Your task to perform on an android device: open app "Etsy: Buy & Sell Unique Items" (install if not already installed) Image 0: 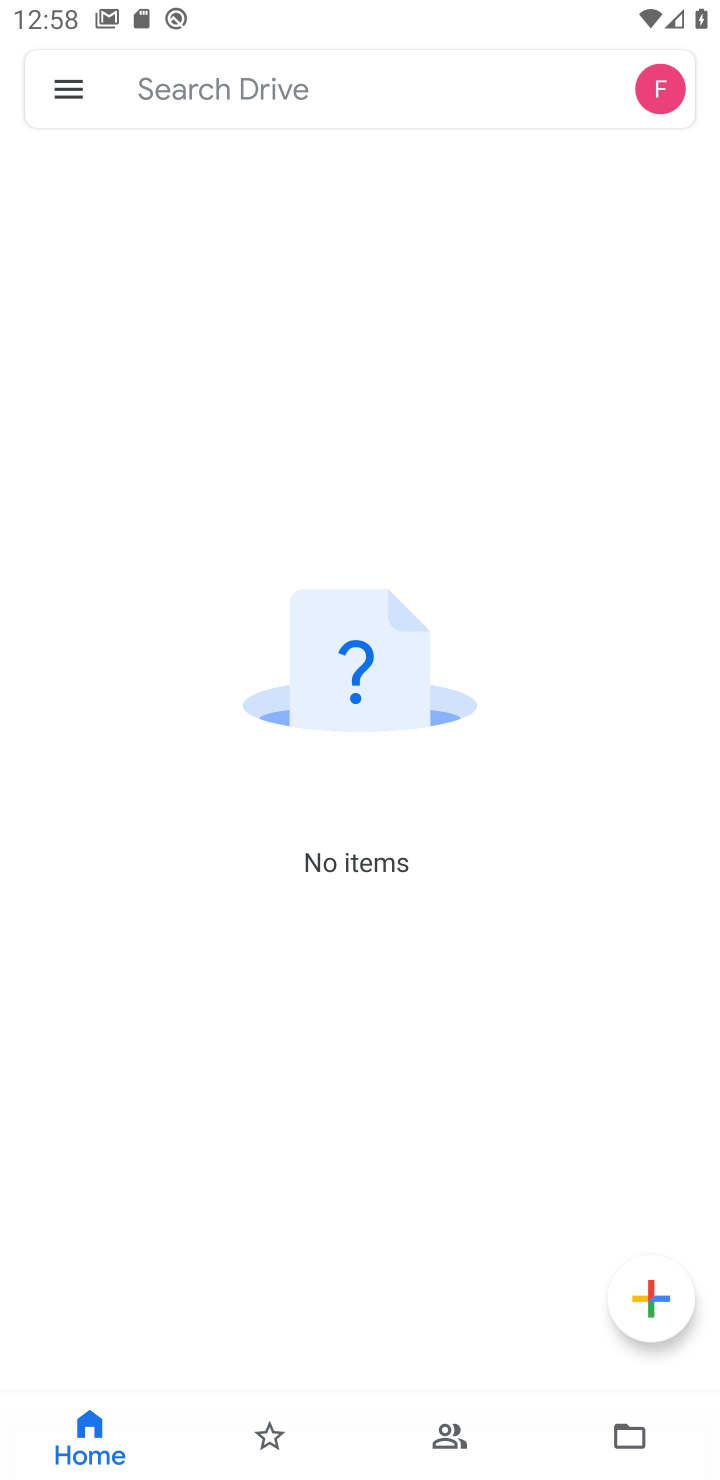
Step 0: press home button
Your task to perform on an android device: open app "Etsy: Buy & Sell Unique Items" (install if not already installed) Image 1: 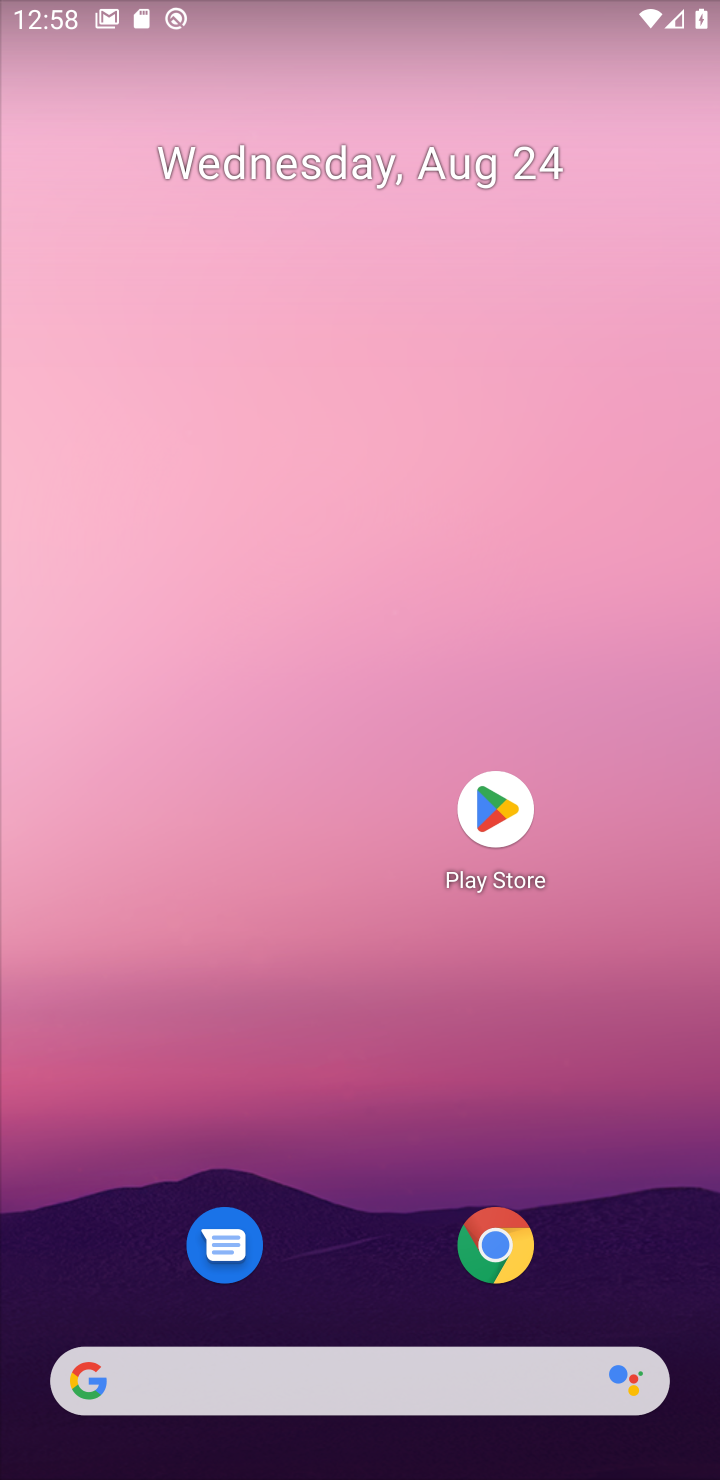
Step 1: click (498, 805)
Your task to perform on an android device: open app "Etsy: Buy & Sell Unique Items" (install if not already installed) Image 2: 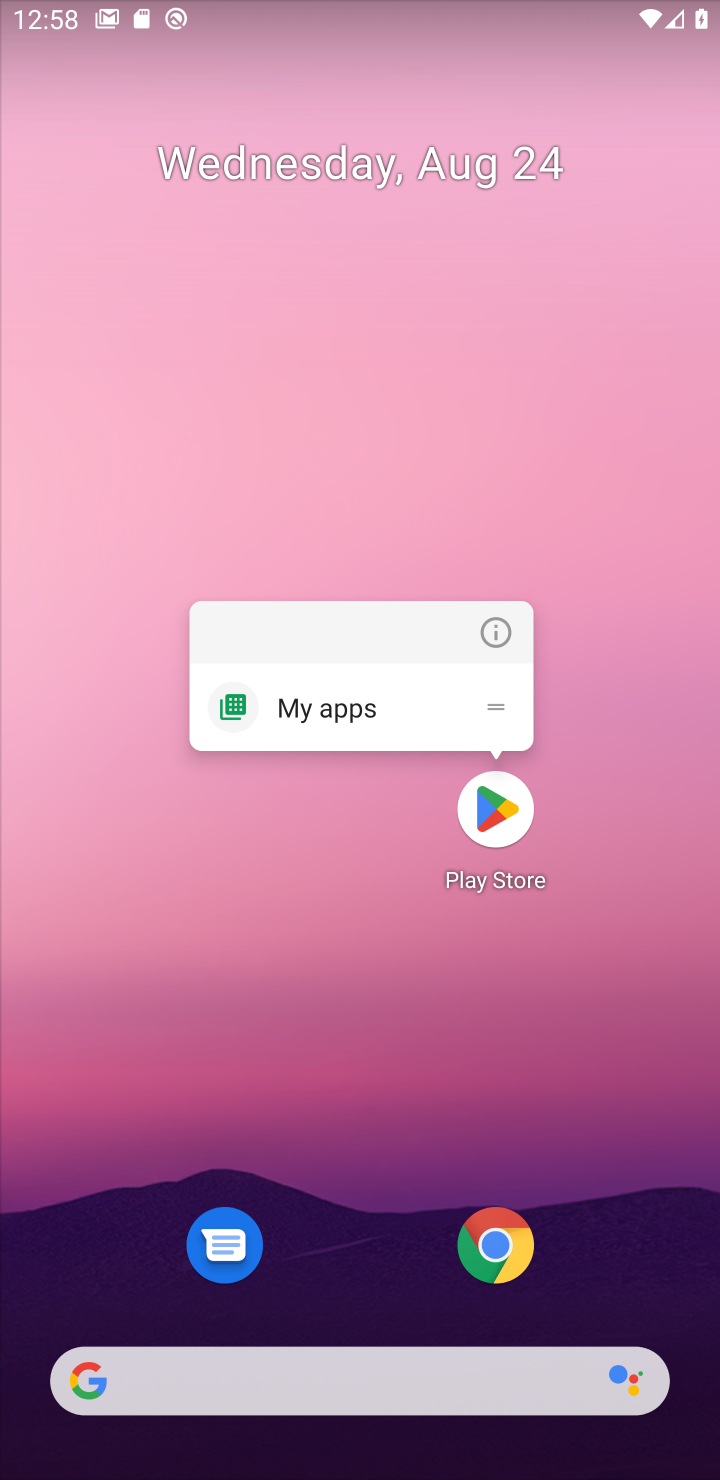
Step 2: click (498, 803)
Your task to perform on an android device: open app "Etsy: Buy & Sell Unique Items" (install if not already installed) Image 3: 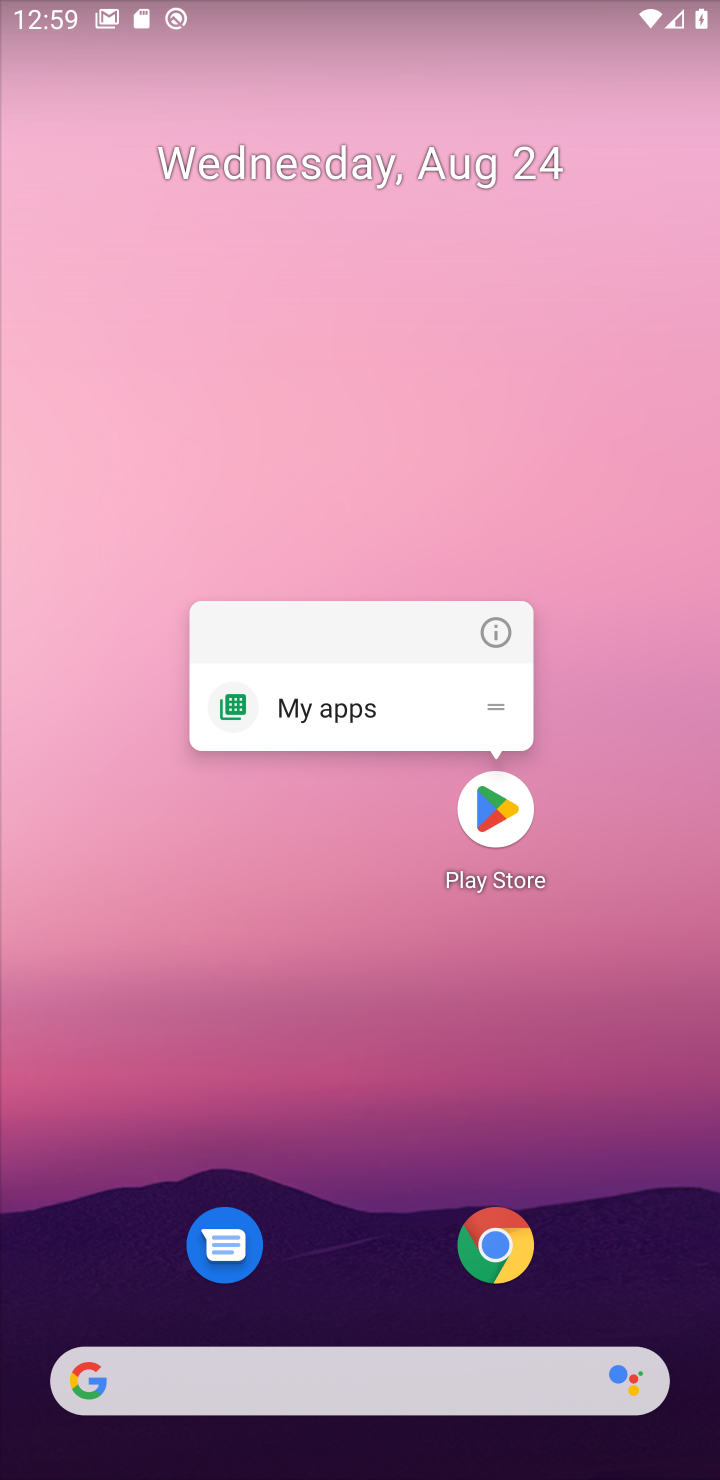
Step 3: click (498, 800)
Your task to perform on an android device: open app "Etsy: Buy & Sell Unique Items" (install if not already installed) Image 4: 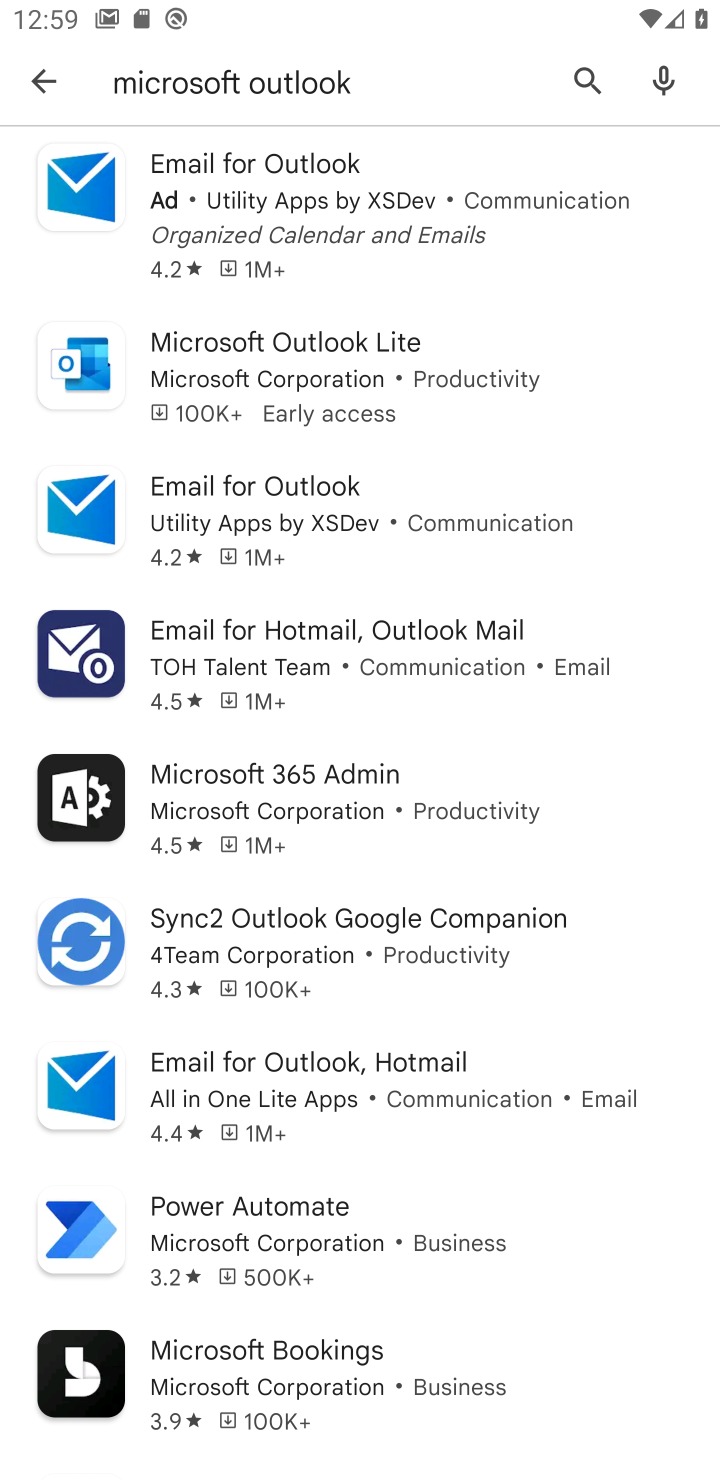
Step 4: click (586, 68)
Your task to perform on an android device: open app "Etsy: Buy & Sell Unique Items" (install if not already installed) Image 5: 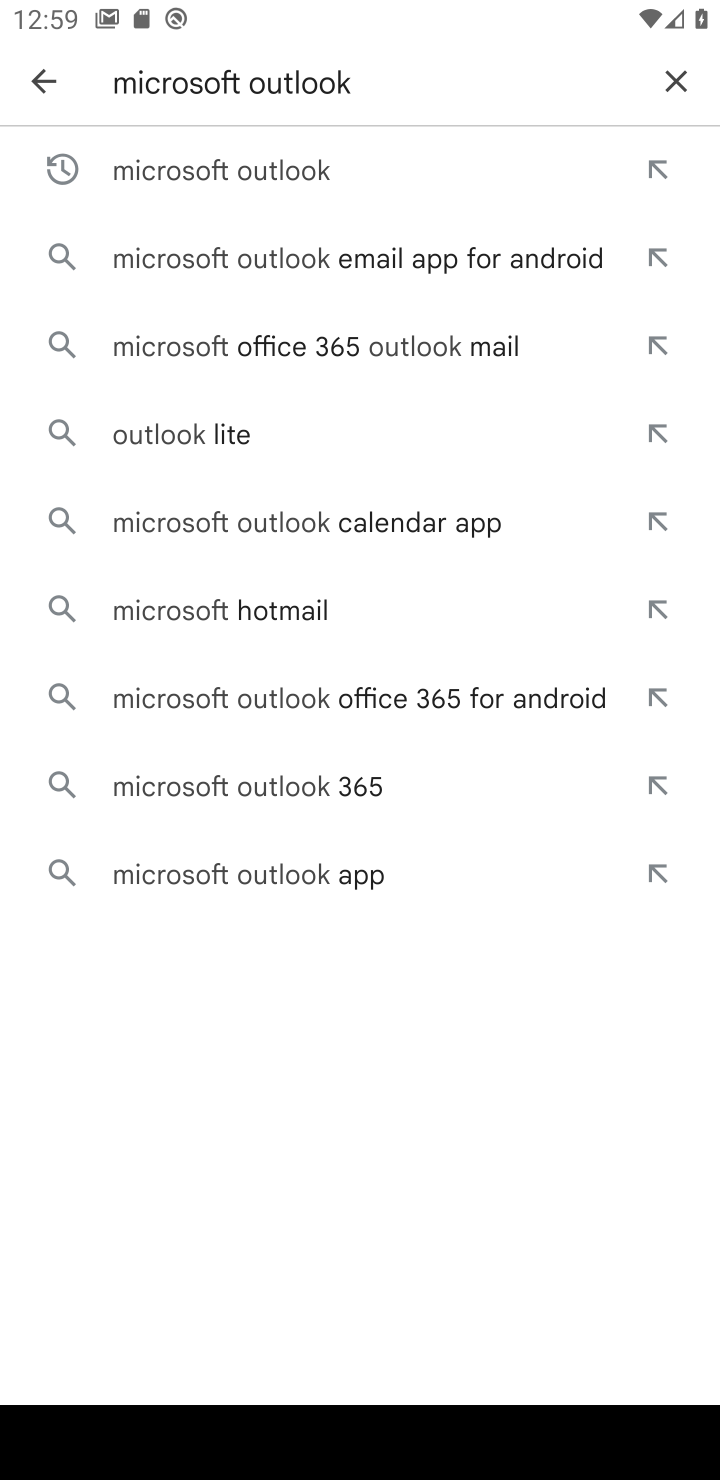
Step 5: click (675, 81)
Your task to perform on an android device: open app "Etsy: Buy & Sell Unique Items" (install if not already installed) Image 6: 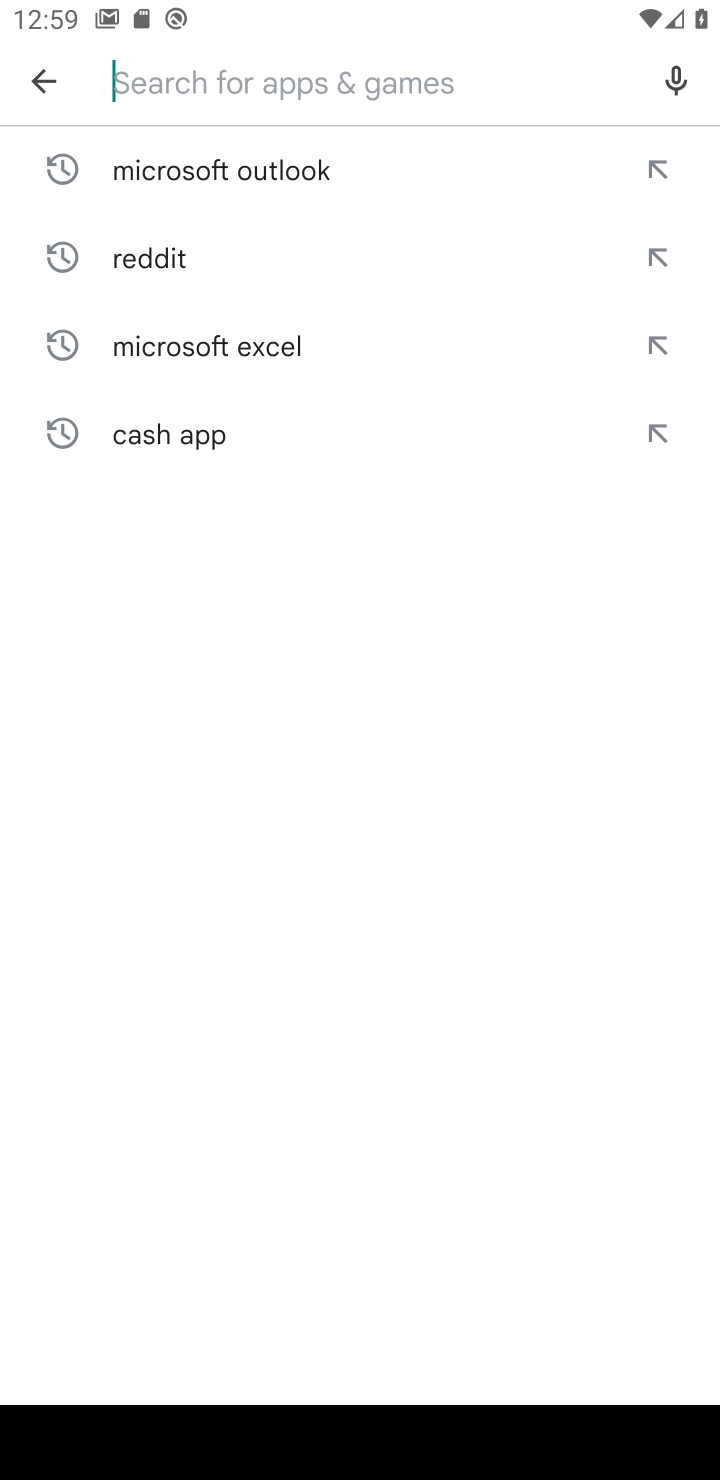
Step 6: type "Etsy: Buy & Sell Unique Items"
Your task to perform on an android device: open app "Etsy: Buy & Sell Unique Items" (install if not already installed) Image 7: 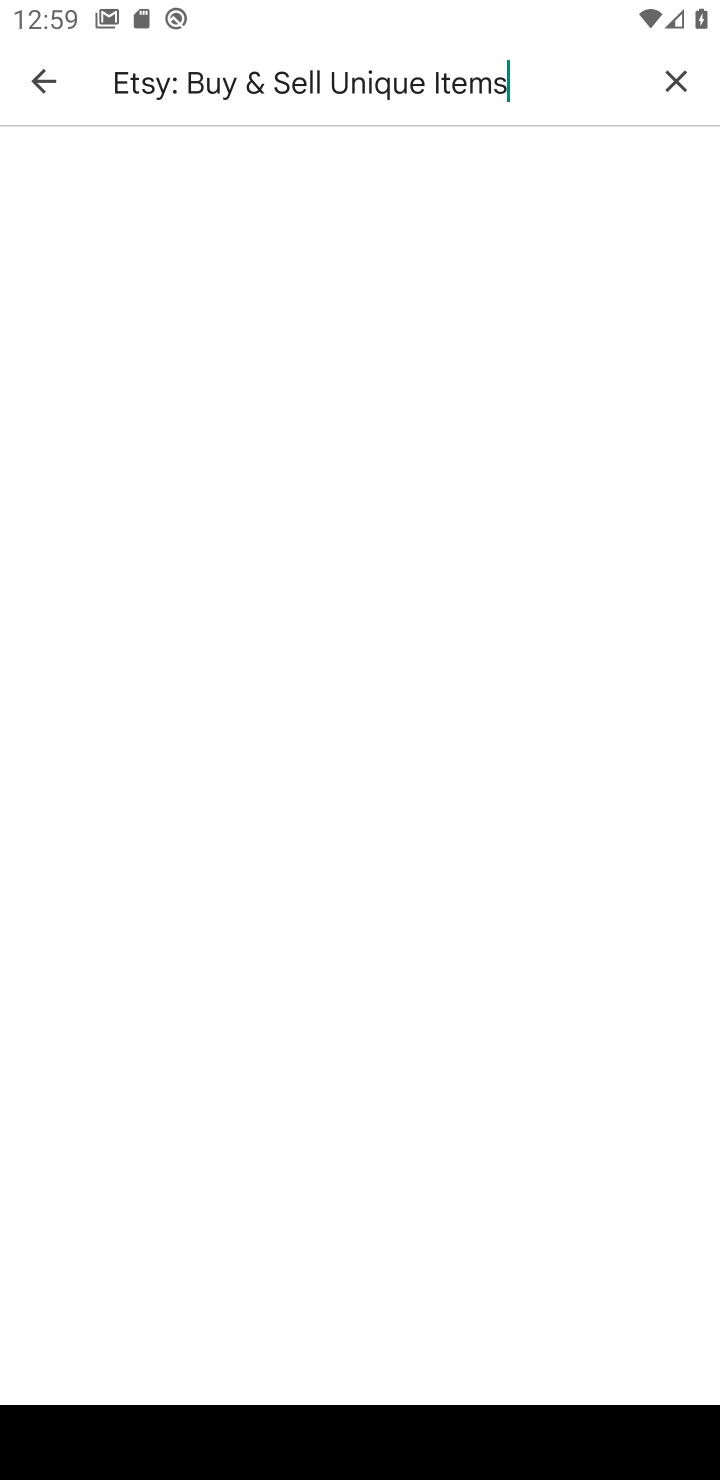
Step 7: task complete